Your task to perform on an android device: Open the Play Movies app and select the watchlist tab. Image 0: 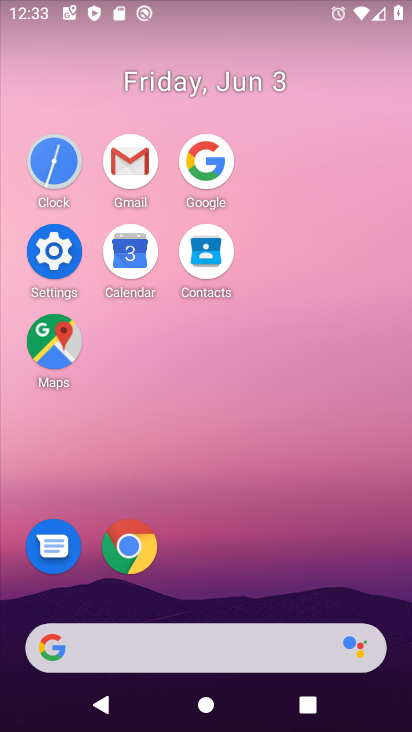
Step 0: drag from (319, 555) to (346, 128)
Your task to perform on an android device: Open the Play Movies app and select the watchlist tab. Image 1: 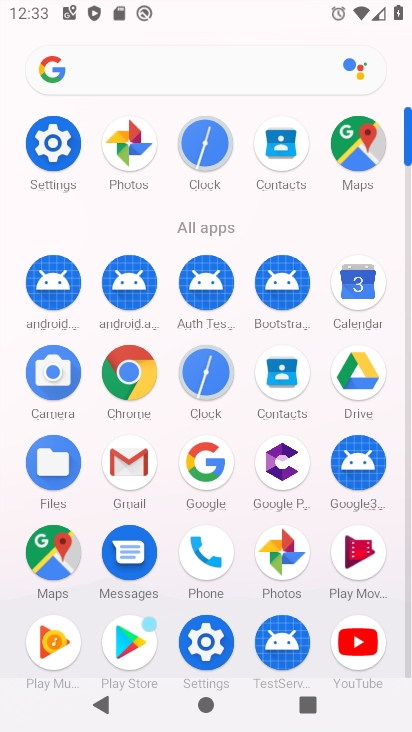
Step 1: drag from (193, 570) to (233, 251)
Your task to perform on an android device: Open the Play Movies app and select the watchlist tab. Image 2: 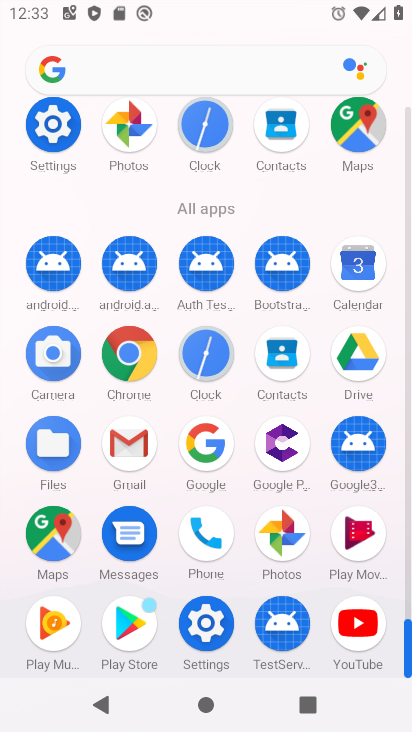
Step 2: click (359, 539)
Your task to perform on an android device: Open the Play Movies app and select the watchlist tab. Image 3: 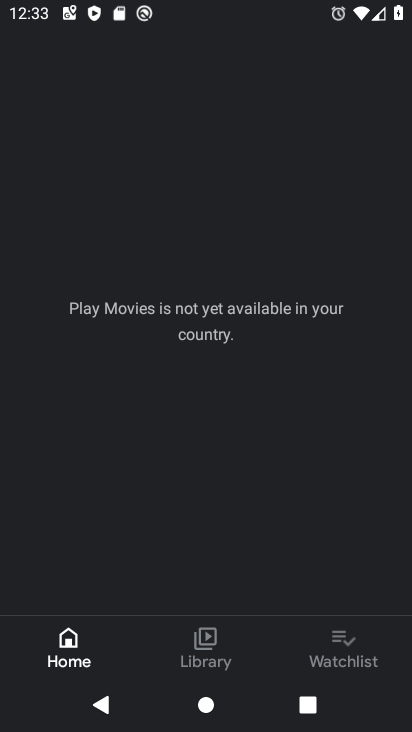
Step 3: click (358, 658)
Your task to perform on an android device: Open the Play Movies app and select the watchlist tab. Image 4: 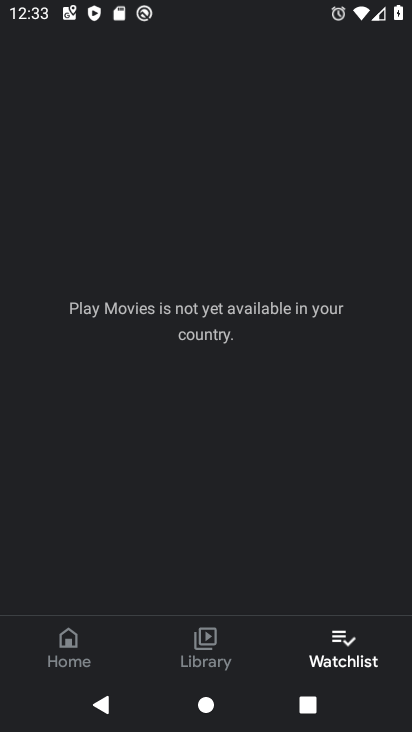
Step 4: task complete